Your task to perform on an android device: Open calendar and show me the first week of next month Image 0: 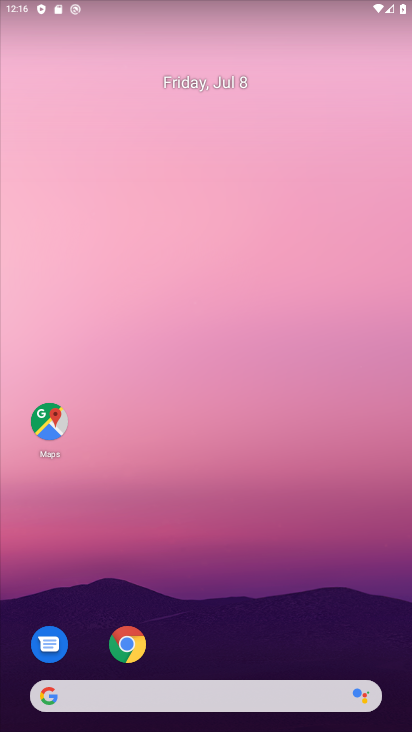
Step 0: drag from (173, 678) to (150, 217)
Your task to perform on an android device: Open calendar and show me the first week of next month Image 1: 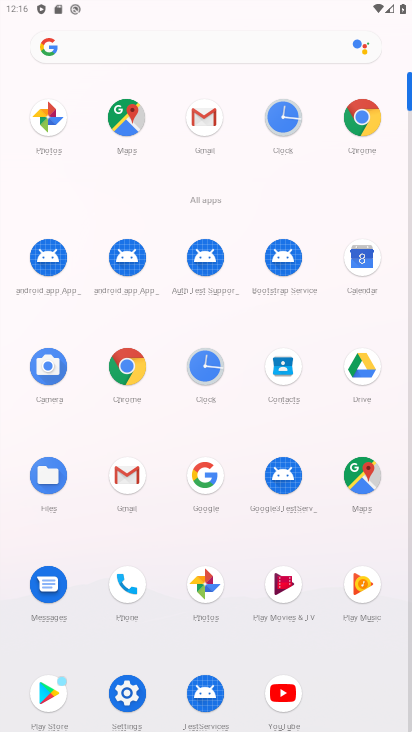
Step 1: click (358, 264)
Your task to perform on an android device: Open calendar and show me the first week of next month Image 2: 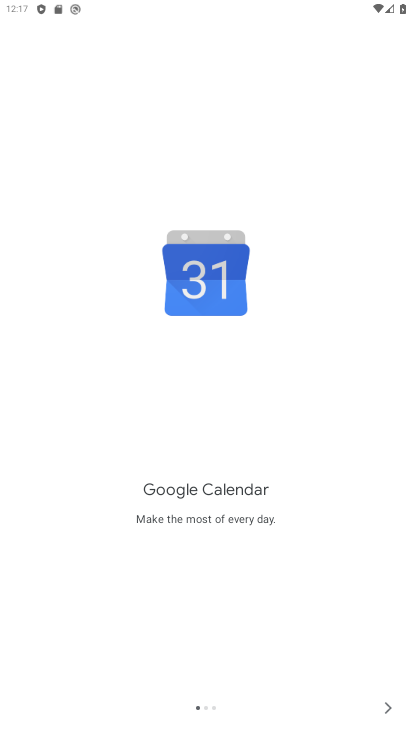
Step 2: click (383, 707)
Your task to perform on an android device: Open calendar and show me the first week of next month Image 3: 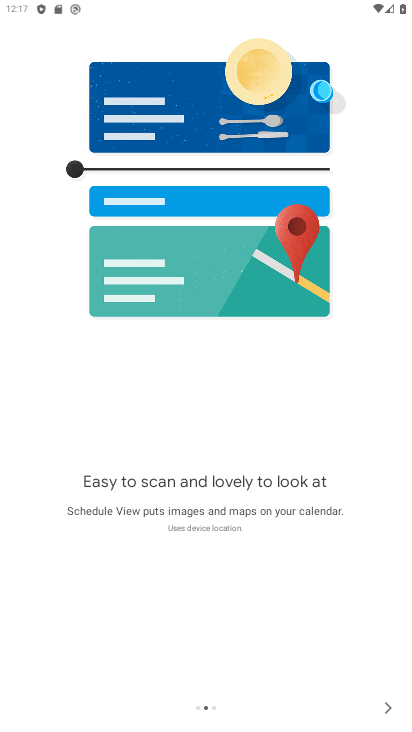
Step 3: click (383, 707)
Your task to perform on an android device: Open calendar and show me the first week of next month Image 4: 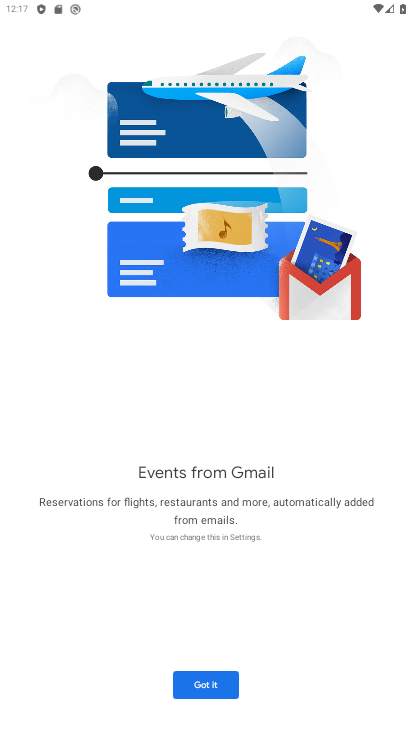
Step 4: click (204, 680)
Your task to perform on an android device: Open calendar and show me the first week of next month Image 5: 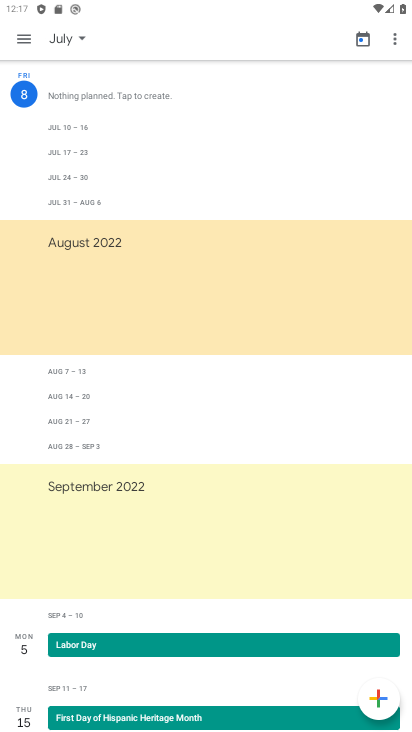
Step 5: click (68, 42)
Your task to perform on an android device: Open calendar and show me the first week of next month Image 6: 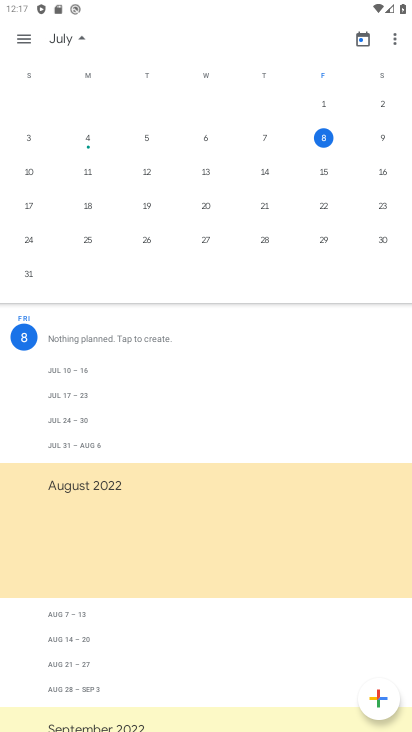
Step 6: task complete